Your task to perform on an android device: Is it going to rain this weekend? Image 0: 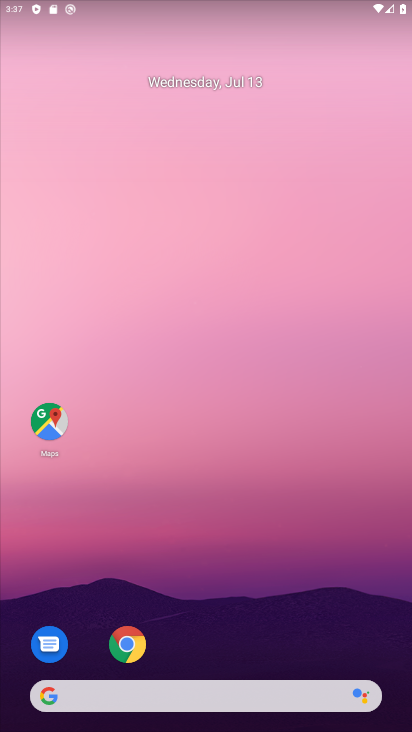
Step 0: drag from (214, 580) to (323, 115)
Your task to perform on an android device: Is it going to rain this weekend? Image 1: 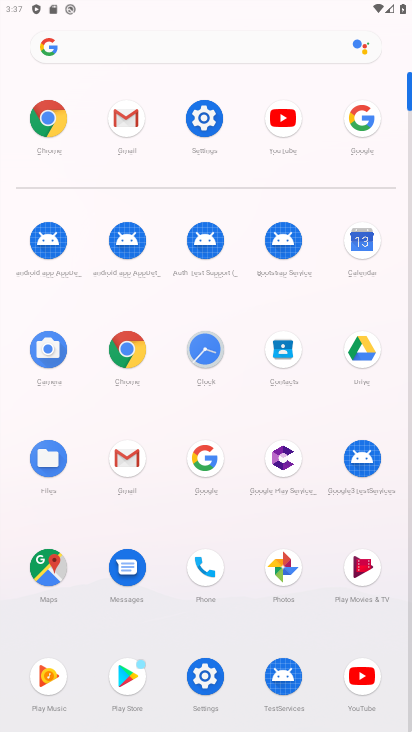
Step 1: click (174, 45)
Your task to perform on an android device: Is it going to rain this weekend? Image 2: 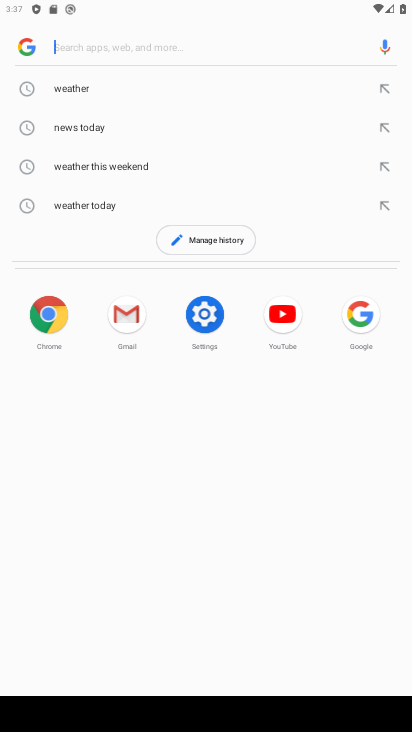
Step 2: click (78, 88)
Your task to perform on an android device: Is it going to rain this weekend? Image 3: 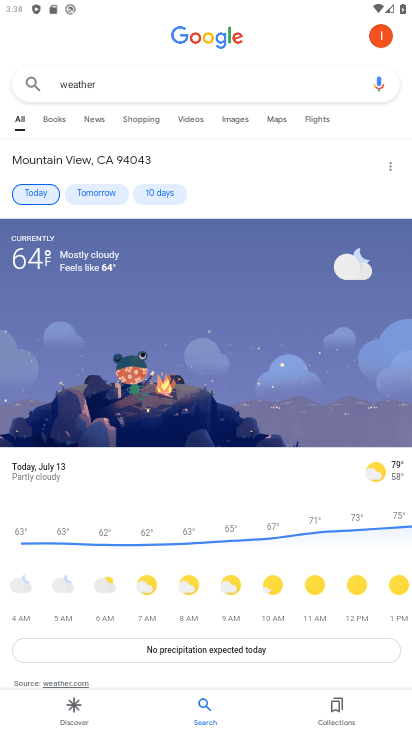
Step 3: click (154, 194)
Your task to perform on an android device: Is it going to rain this weekend? Image 4: 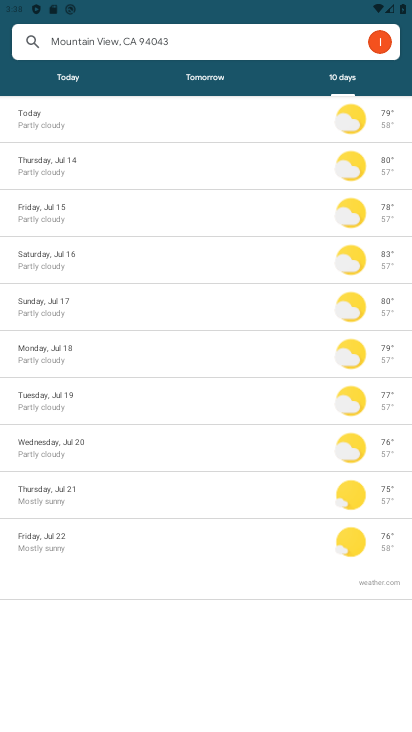
Step 4: task complete